Your task to perform on an android device: Check the news Image 0: 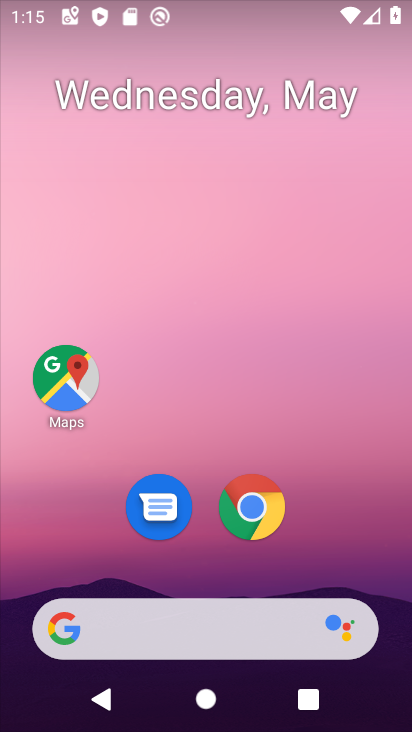
Step 0: drag from (165, 559) to (258, 249)
Your task to perform on an android device: Check the news Image 1: 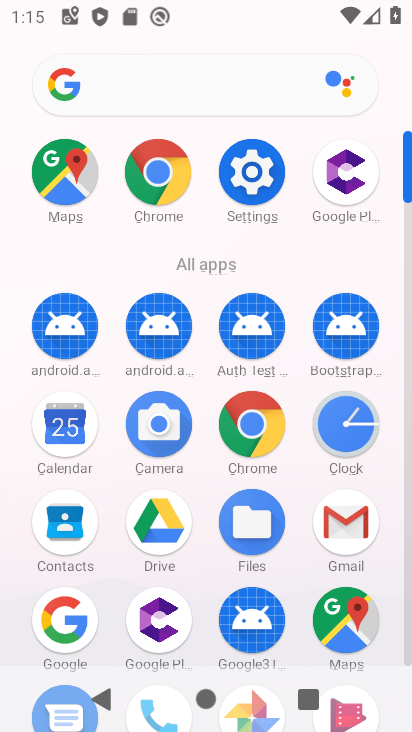
Step 1: click (84, 627)
Your task to perform on an android device: Check the news Image 2: 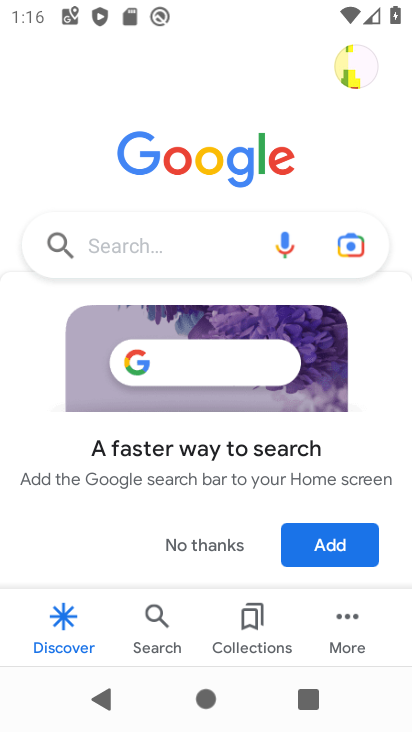
Step 2: task complete